Your task to perform on an android device: turn on javascript in the chrome app Image 0: 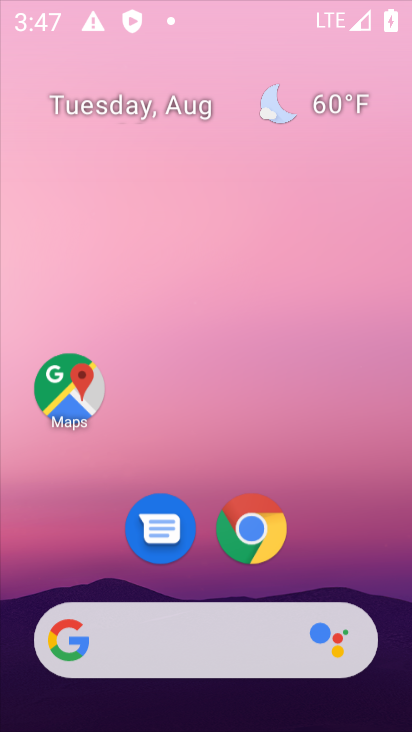
Step 0: click (361, 153)
Your task to perform on an android device: turn on javascript in the chrome app Image 1: 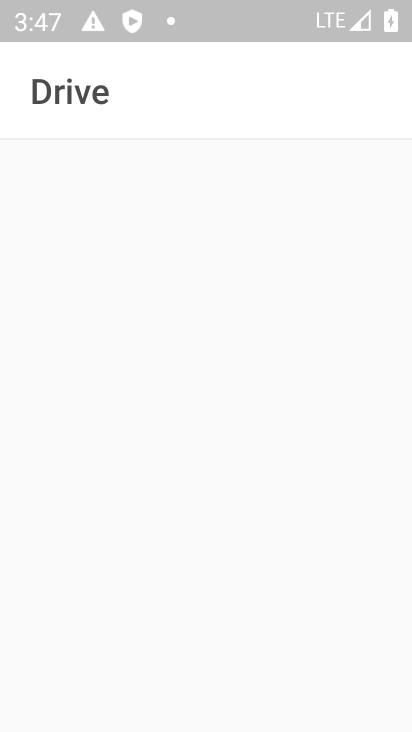
Step 1: drag from (363, 565) to (372, 216)
Your task to perform on an android device: turn on javascript in the chrome app Image 2: 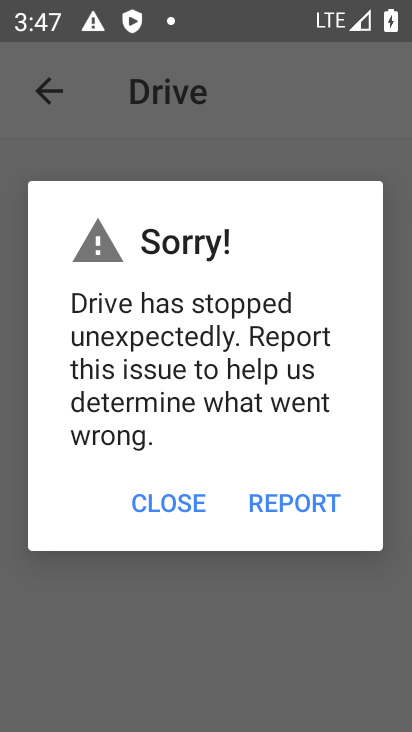
Step 2: press back button
Your task to perform on an android device: turn on javascript in the chrome app Image 3: 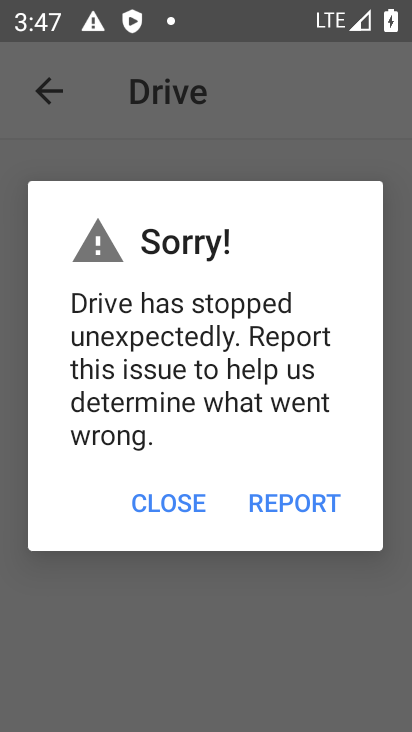
Step 3: press home button
Your task to perform on an android device: turn on javascript in the chrome app Image 4: 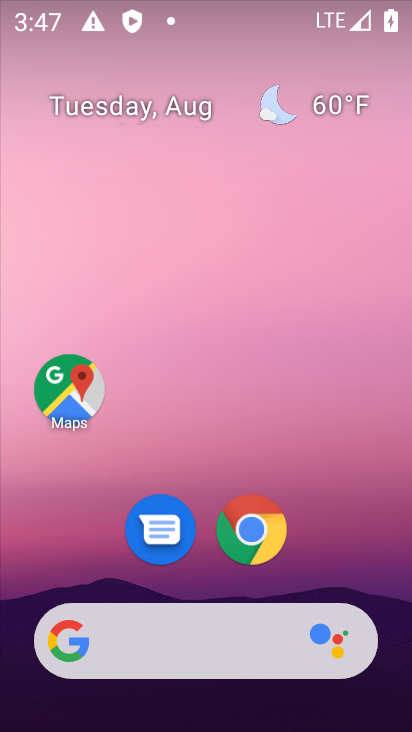
Step 4: drag from (384, 522) to (361, 156)
Your task to perform on an android device: turn on javascript in the chrome app Image 5: 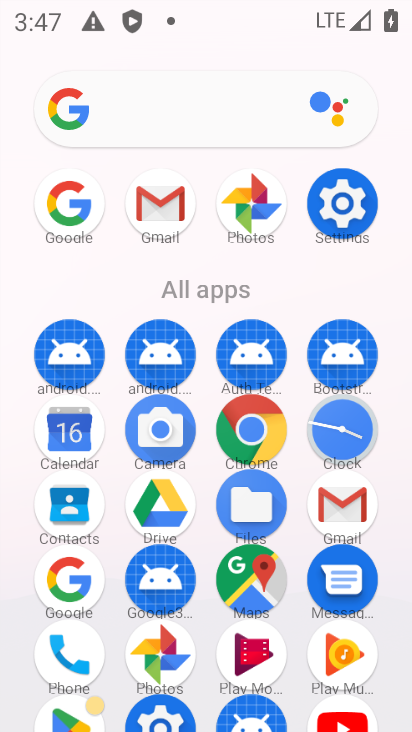
Step 5: click (255, 416)
Your task to perform on an android device: turn on javascript in the chrome app Image 6: 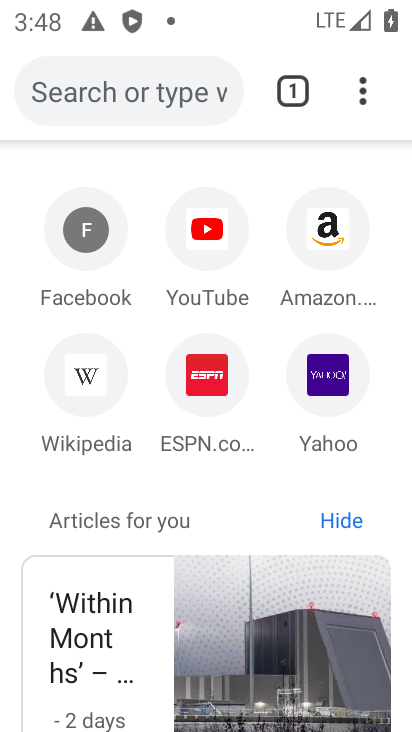
Step 6: click (367, 81)
Your task to perform on an android device: turn on javascript in the chrome app Image 7: 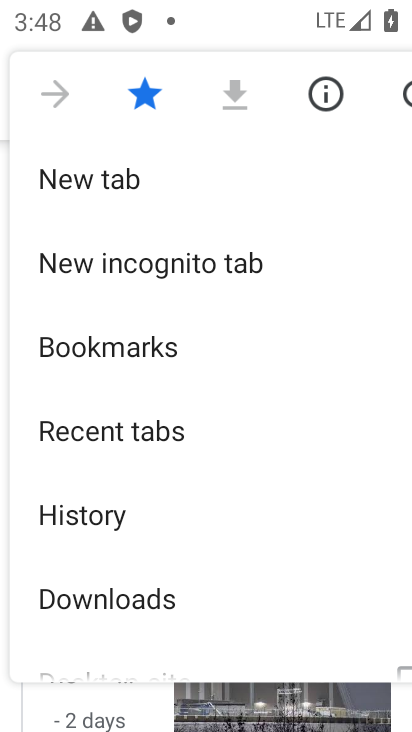
Step 7: drag from (289, 561) to (271, 233)
Your task to perform on an android device: turn on javascript in the chrome app Image 8: 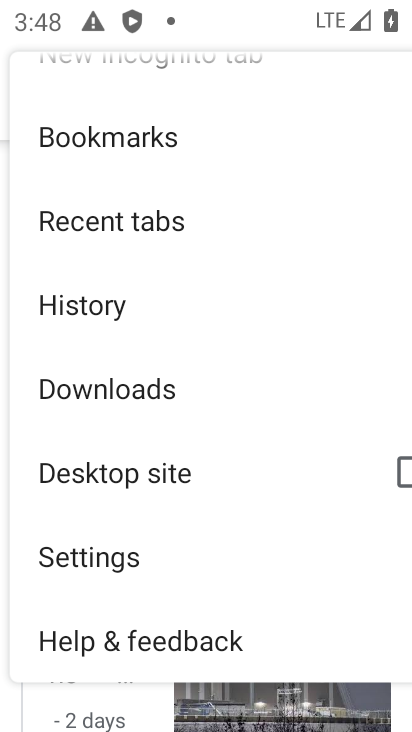
Step 8: click (96, 557)
Your task to perform on an android device: turn on javascript in the chrome app Image 9: 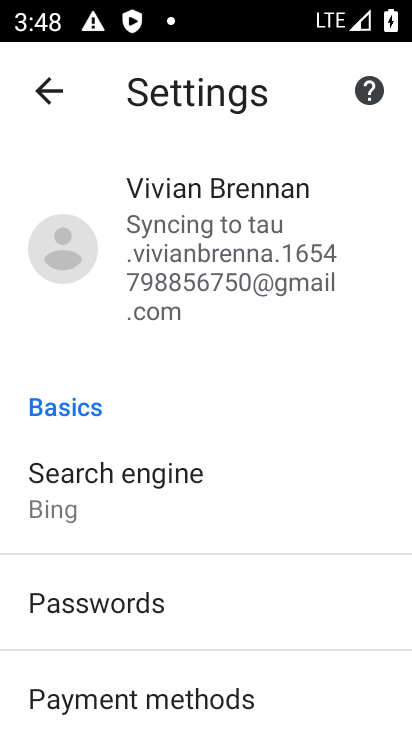
Step 9: drag from (289, 575) to (239, 169)
Your task to perform on an android device: turn on javascript in the chrome app Image 10: 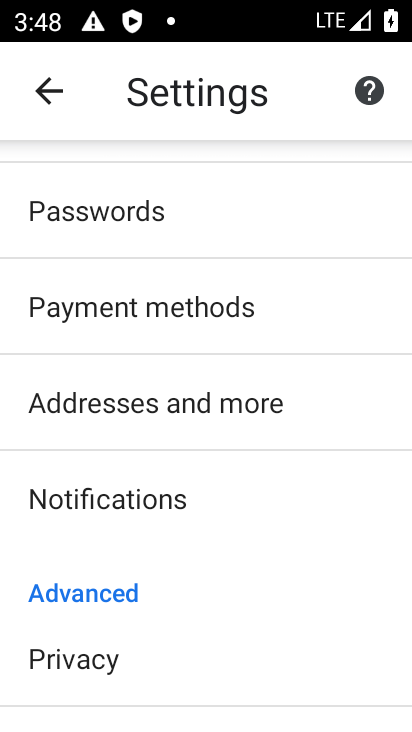
Step 10: drag from (271, 547) to (164, 163)
Your task to perform on an android device: turn on javascript in the chrome app Image 11: 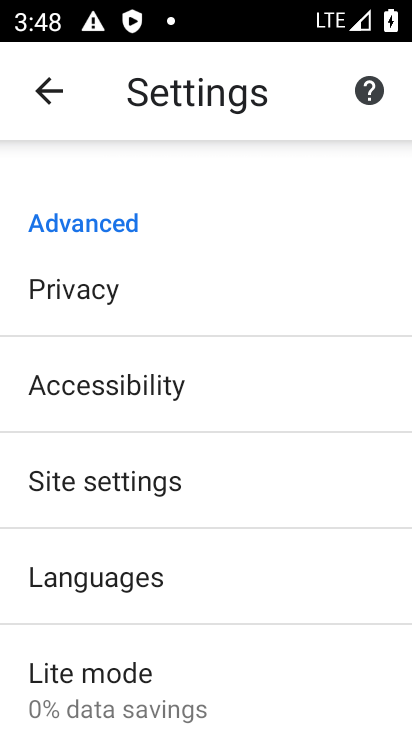
Step 11: click (177, 496)
Your task to perform on an android device: turn on javascript in the chrome app Image 12: 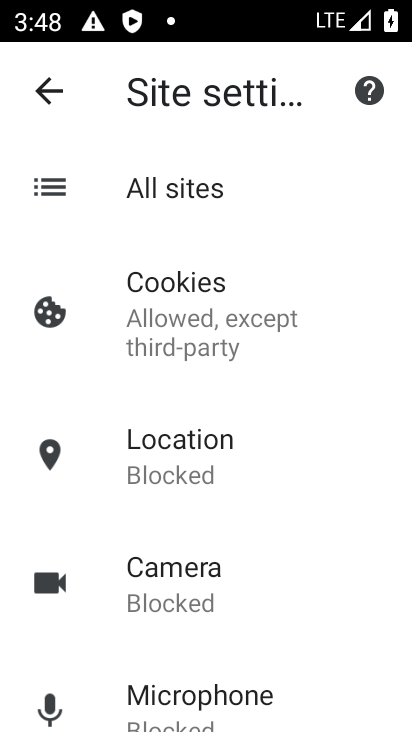
Step 12: drag from (249, 626) to (219, 337)
Your task to perform on an android device: turn on javascript in the chrome app Image 13: 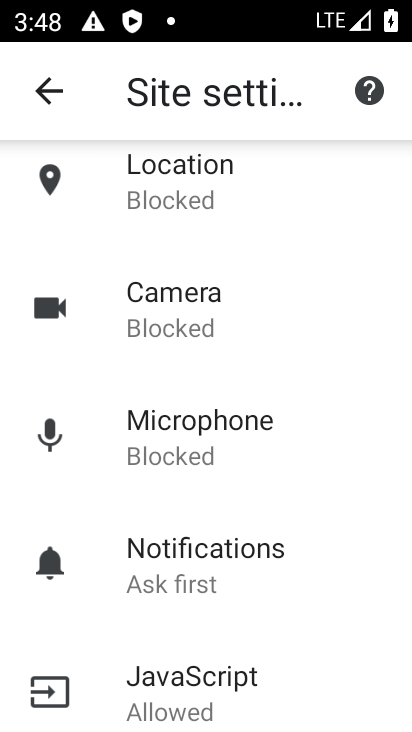
Step 13: click (257, 690)
Your task to perform on an android device: turn on javascript in the chrome app Image 14: 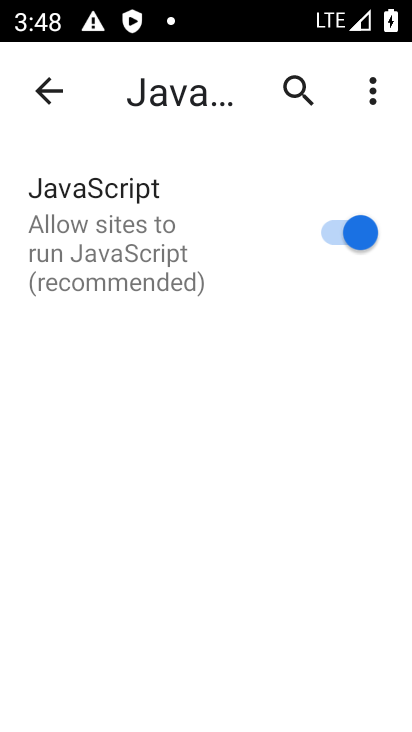
Step 14: task complete